Your task to perform on an android device: Go to location settings Image 0: 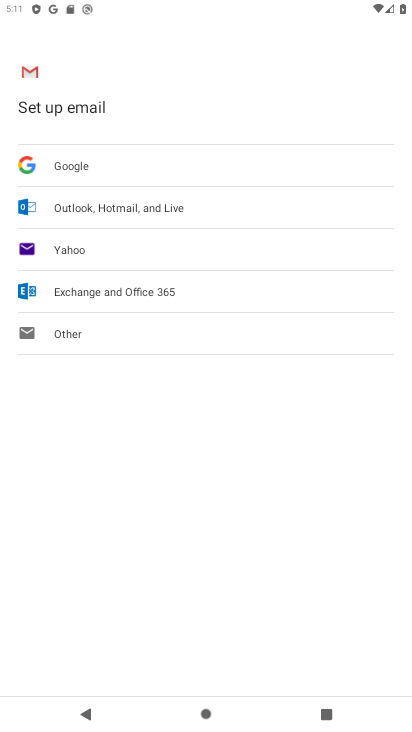
Step 0: press home button
Your task to perform on an android device: Go to location settings Image 1: 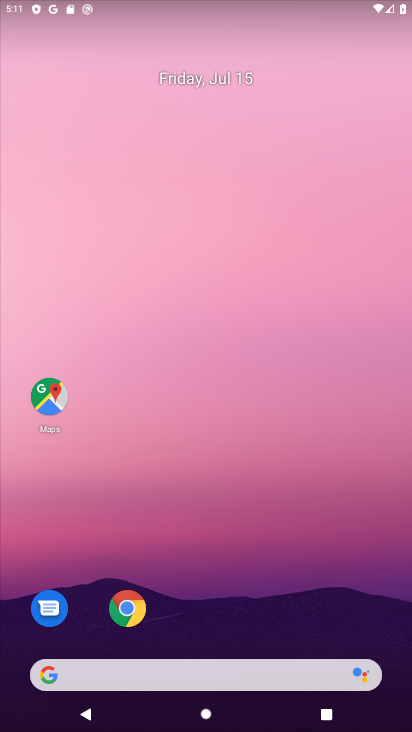
Step 1: drag from (314, 587) to (367, 166)
Your task to perform on an android device: Go to location settings Image 2: 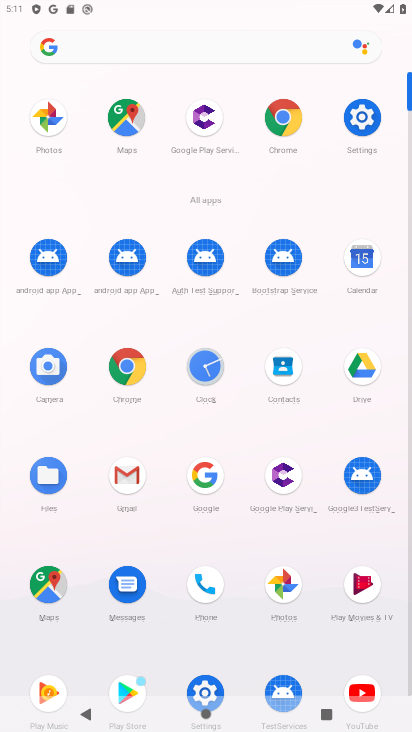
Step 2: click (374, 119)
Your task to perform on an android device: Go to location settings Image 3: 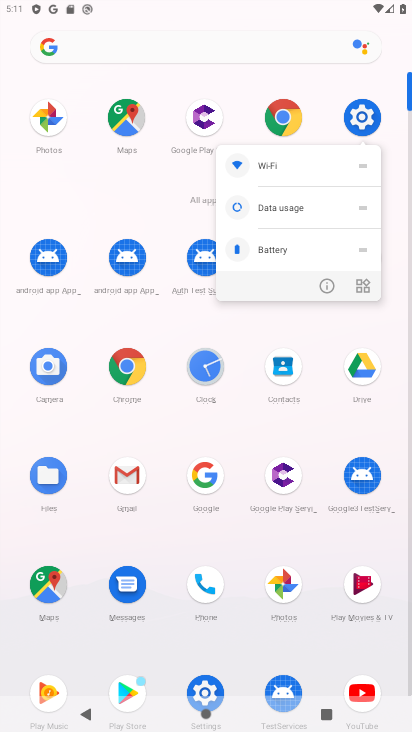
Step 3: click (374, 119)
Your task to perform on an android device: Go to location settings Image 4: 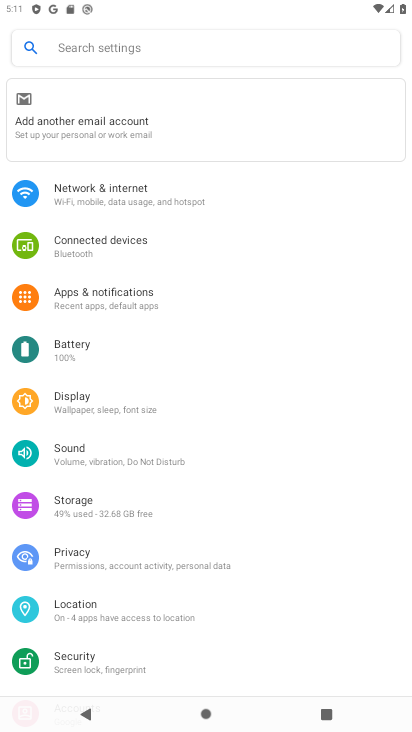
Step 4: click (89, 600)
Your task to perform on an android device: Go to location settings Image 5: 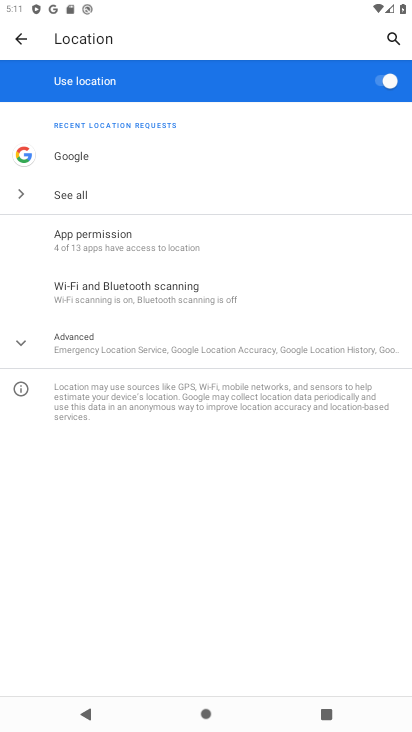
Step 5: task complete